Your task to perform on an android device: View the shopping cart on ebay.com. Add "lenovo thinkpad" to the cart on ebay.com, then select checkout. Image 0: 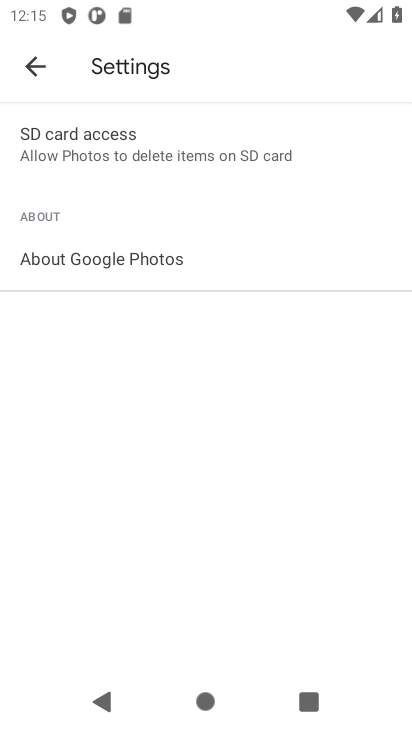
Step 0: press home button
Your task to perform on an android device: View the shopping cart on ebay.com. Add "lenovo thinkpad" to the cart on ebay.com, then select checkout. Image 1: 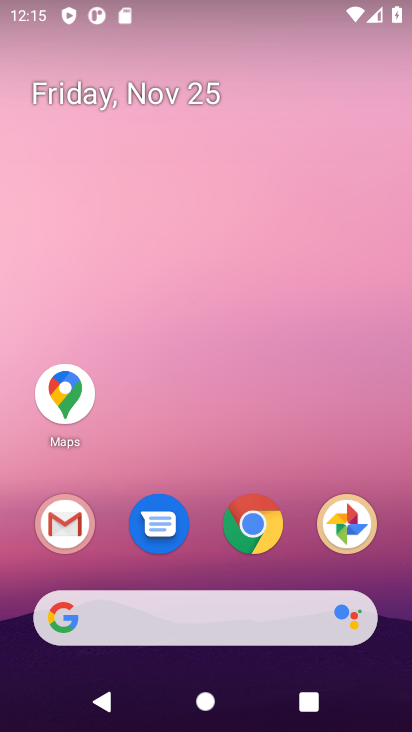
Step 1: click (258, 527)
Your task to perform on an android device: View the shopping cart on ebay.com. Add "lenovo thinkpad" to the cart on ebay.com, then select checkout. Image 2: 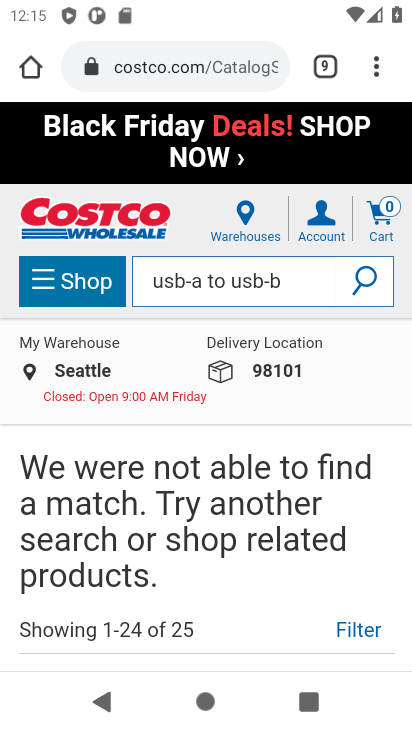
Step 2: click (161, 67)
Your task to perform on an android device: View the shopping cart on ebay.com. Add "lenovo thinkpad" to the cart on ebay.com, then select checkout. Image 3: 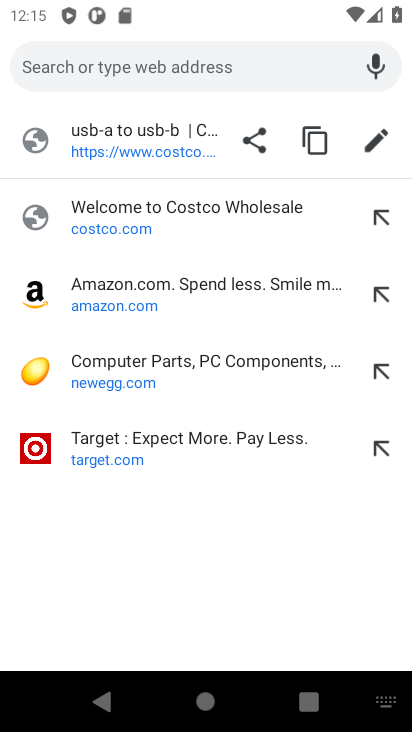
Step 3: type "ebay.com"
Your task to perform on an android device: View the shopping cart on ebay.com. Add "lenovo thinkpad" to the cart on ebay.com, then select checkout. Image 4: 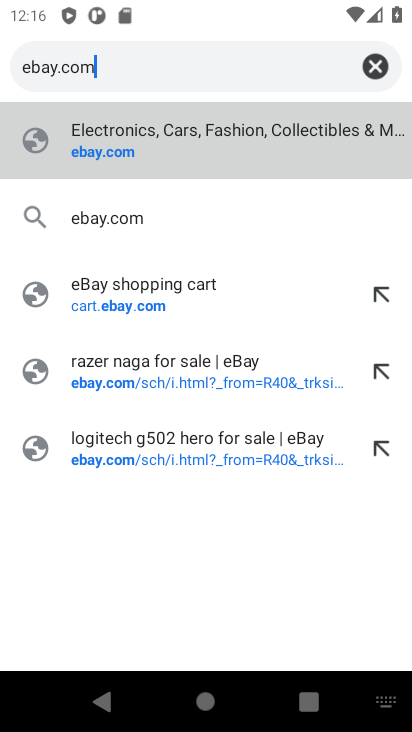
Step 4: click (88, 145)
Your task to perform on an android device: View the shopping cart on ebay.com. Add "lenovo thinkpad" to the cart on ebay.com, then select checkout. Image 5: 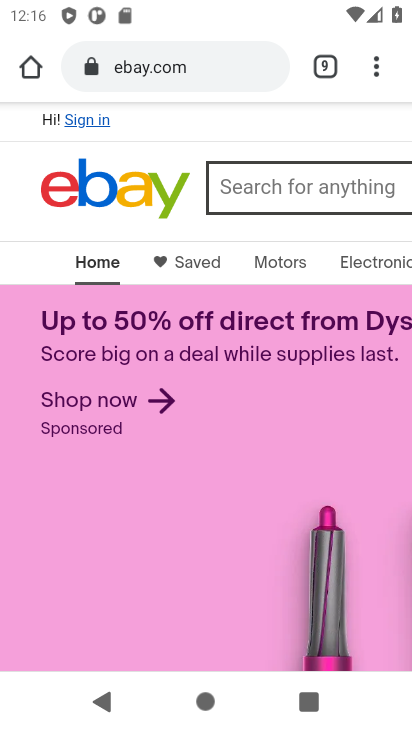
Step 5: drag from (314, 228) to (18, 199)
Your task to perform on an android device: View the shopping cart on ebay.com. Add "lenovo thinkpad" to the cart on ebay.com, then select checkout. Image 6: 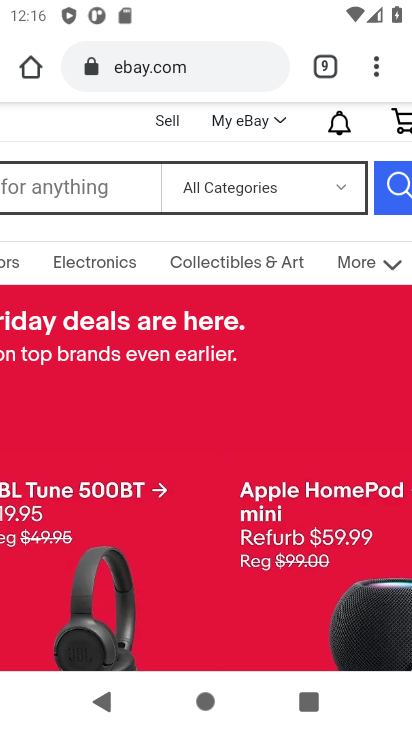
Step 6: click (404, 121)
Your task to perform on an android device: View the shopping cart on ebay.com. Add "lenovo thinkpad" to the cart on ebay.com, then select checkout. Image 7: 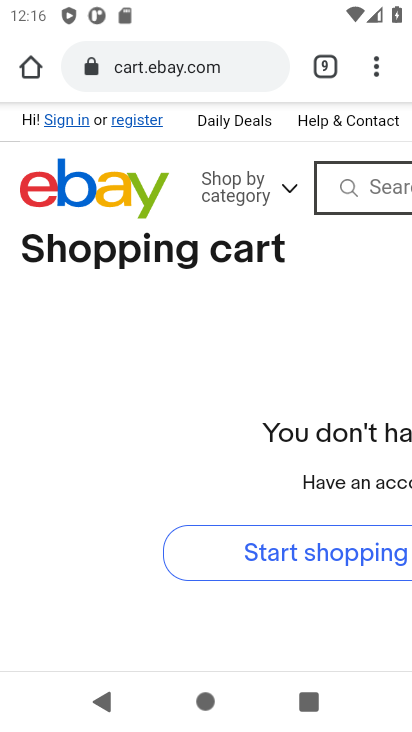
Step 7: drag from (317, 361) to (22, 345)
Your task to perform on an android device: View the shopping cart on ebay.com. Add "lenovo thinkpad" to the cart on ebay.com, then select checkout. Image 8: 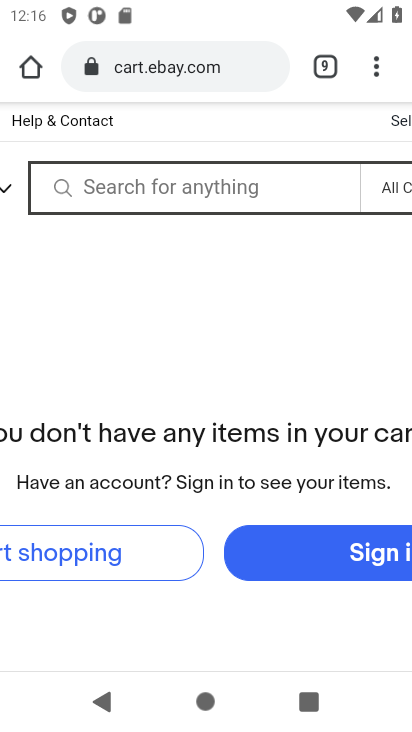
Step 8: click (149, 193)
Your task to perform on an android device: View the shopping cart on ebay.com. Add "lenovo thinkpad" to the cart on ebay.com, then select checkout. Image 9: 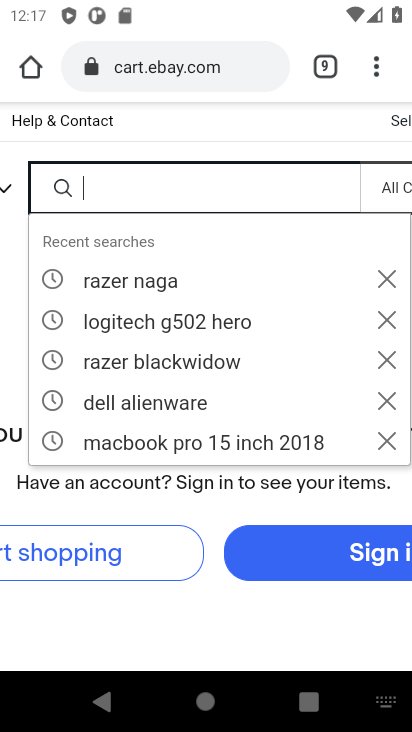
Step 9: type "lenovo thinkpad"
Your task to perform on an android device: View the shopping cart on ebay.com. Add "lenovo thinkpad" to the cart on ebay.com, then select checkout. Image 10: 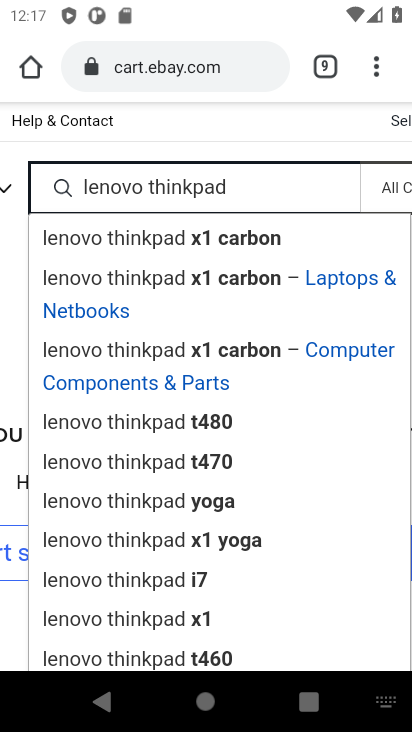
Step 10: drag from (128, 452) to (150, 366)
Your task to perform on an android device: View the shopping cart on ebay.com. Add "lenovo thinkpad" to the cart on ebay.com, then select checkout. Image 11: 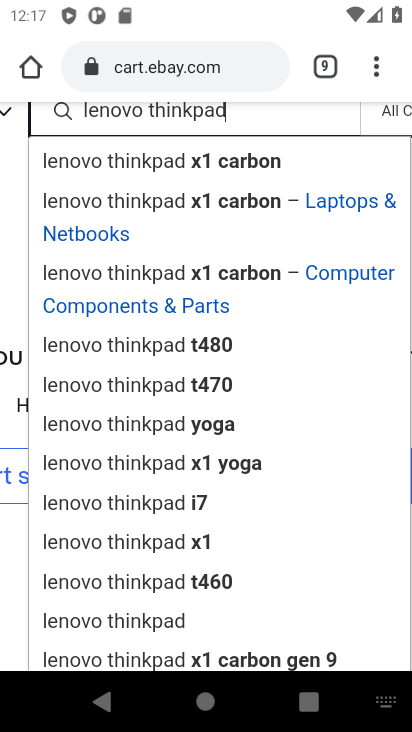
Step 11: click (93, 619)
Your task to perform on an android device: View the shopping cart on ebay.com. Add "lenovo thinkpad" to the cart on ebay.com, then select checkout. Image 12: 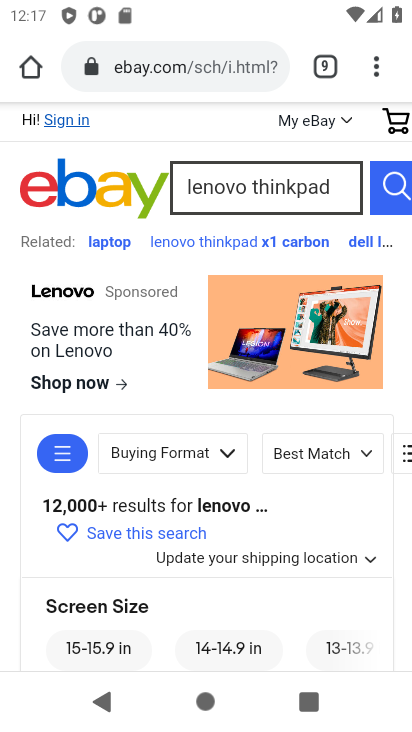
Step 12: drag from (164, 468) to (178, 270)
Your task to perform on an android device: View the shopping cart on ebay.com. Add "lenovo thinkpad" to the cart on ebay.com, then select checkout. Image 13: 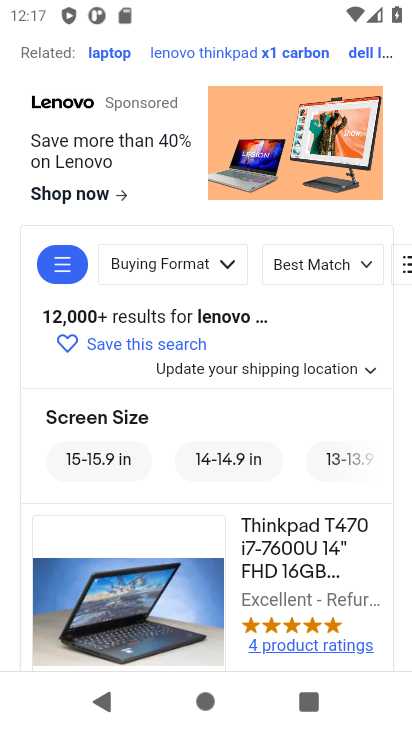
Step 13: drag from (158, 530) to (177, 387)
Your task to perform on an android device: View the shopping cart on ebay.com. Add "lenovo thinkpad" to the cart on ebay.com, then select checkout. Image 14: 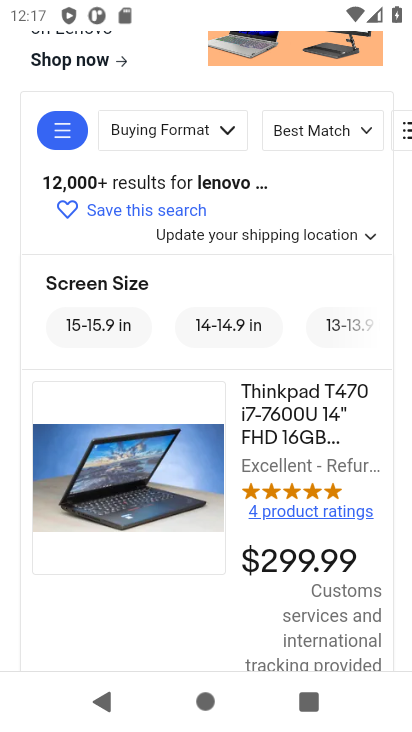
Step 14: drag from (117, 537) to (145, 403)
Your task to perform on an android device: View the shopping cart on ebay.com. Add "lenovo thinkpad" to the cart on ebay.com, then select checkout. Image 15: 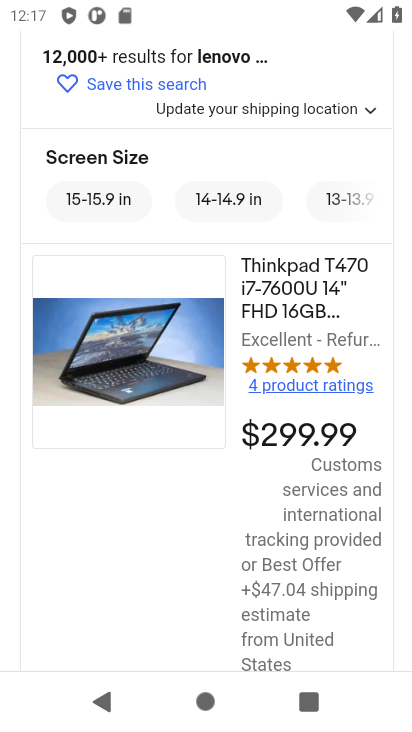
Step 15: drag from (138, 518) to (156, 295)
Your task to perform on an android device: View the shopping cart on ebay.com. Add "lenovo thinkpad" to the cart on ebay.com, then select checkout. Image 16: 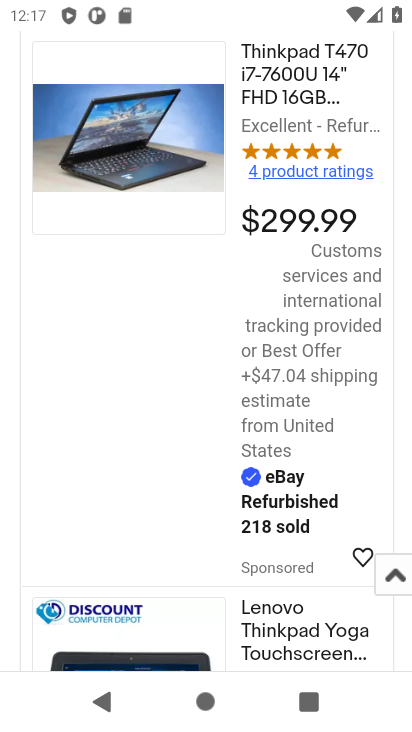
Step 16: drag from (141, 537) to (169, 270)
Your task to perform on an android device: View the shopping cart on ebay.com. Add "lenovo thinkpad" to the cart on ebay.com, then select checkout. Image 17: 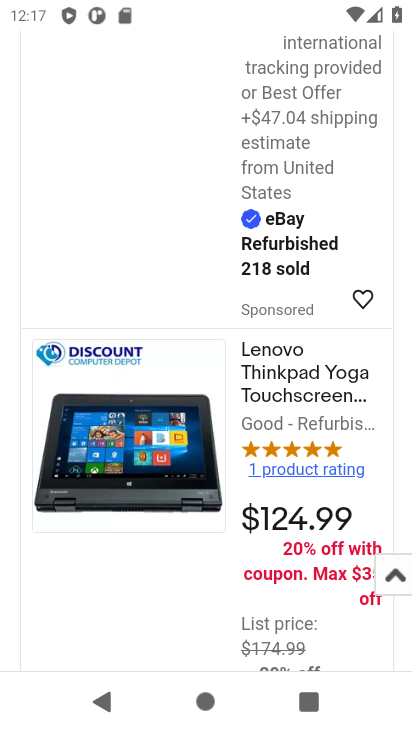
Step 17: click (128, 463)
Your task to perform on an android device: View the shopping cart on ebay.com. Add "lenovo thinkpad" to the cart on ebay.com, then select checkout. Image 18: 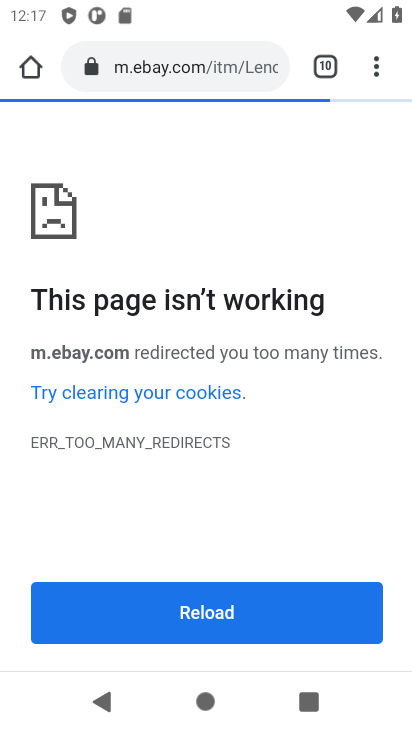
Step 18: task complete